Your task to perform on an android device: Search for Mexican restaurants on Maps Image 0: 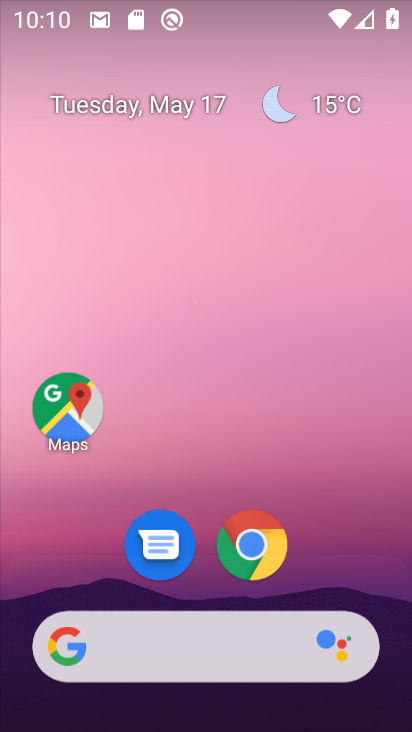
Step 0: drag from (349, 630) to (356, 75)
Your task to perform on an android device: Search for Mexican restaurants on Maps Image 1: 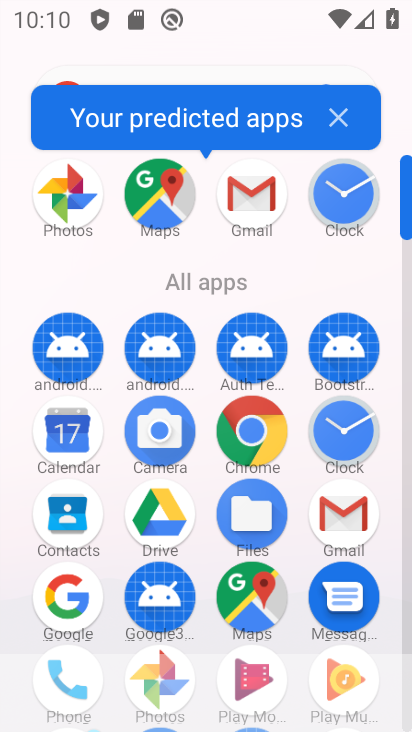
Step 1: click (280, 606)
Your task to perform on an android device: Search for Mexican restaurants on Maps Image 2: 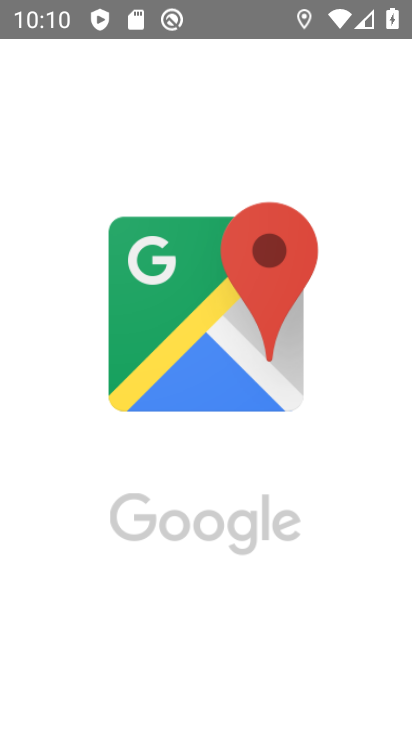
Step 2: click (271, 539)
Your task to perform on an android device: Search for Mexican restaurants on Maps Image 3: 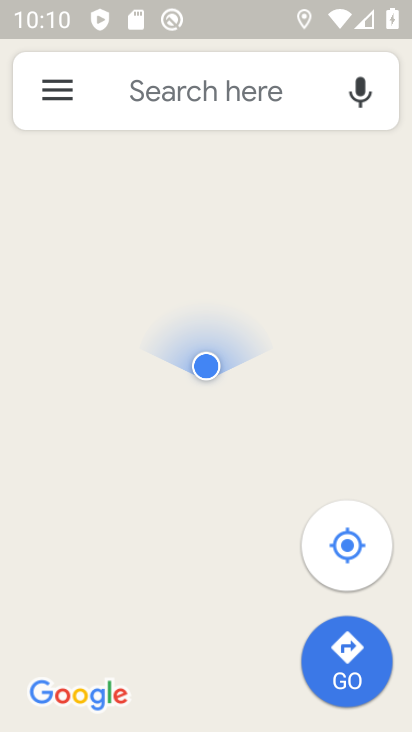
Step 3: click (148, 113)
Your task to perform on an android device: Search for Mexican restaurants on Maps Image 4: 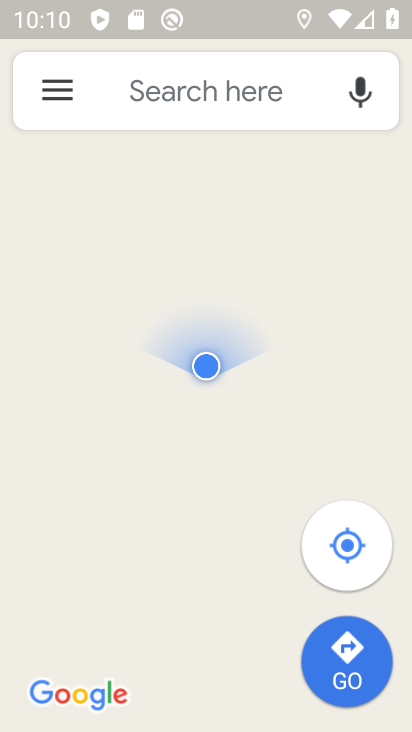
Step 4: click (152, 95)
Your task to perform on an android device: Search for Mexican restaurants on Maps Image 5: 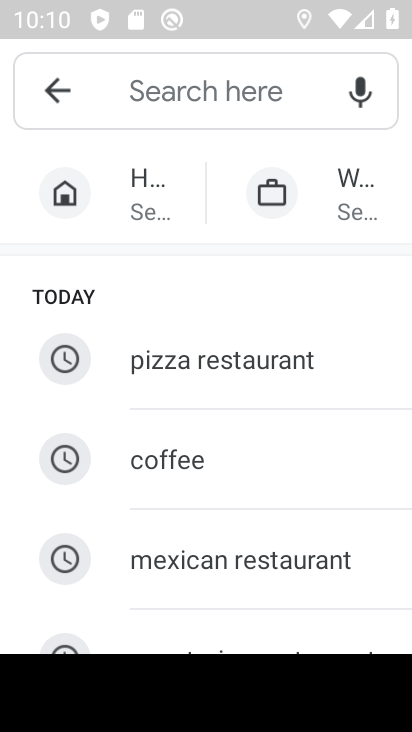
Step 5: click (218, 555)
Your task to perform on an android device: Search for Mexican restaurants on Maps Image 6: 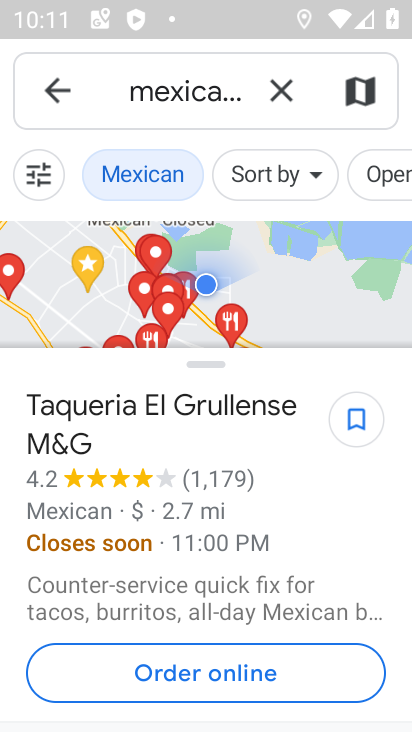
Step 6: task complete